Your task to perform on an android device: Search for the most popular books on Goodreads Image 0: 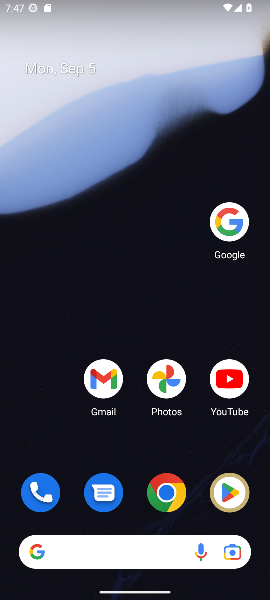
Step 0: click (221, 225)
Your task to perform on an android device: Search for the most popular books on Goodreads Image 1: 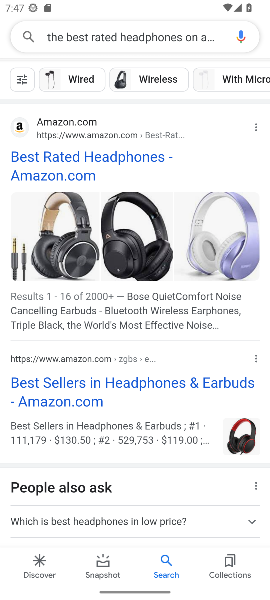
Step 1: click (195, 32)
Your task to perform on an android device: Search for the most popular books on Goodreads Image 2: 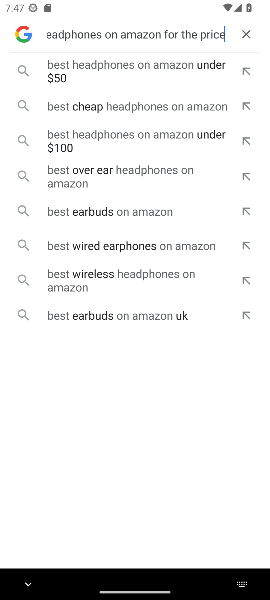
Step 2: click (253, 32)
Your task to perform on an android device: Search for the most popular books on Goodreads Image 3: 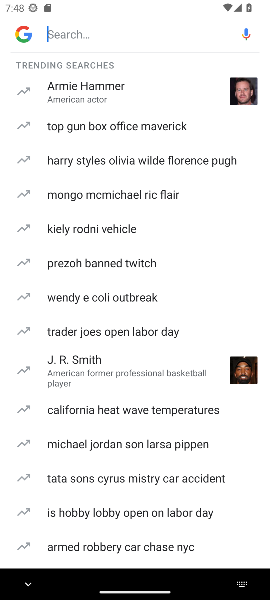
Step 3: click (121, 32)
Your task to perform on an android device: Search for the most popular books on Goodreads Image 4: 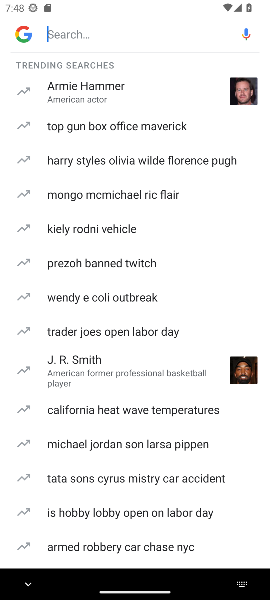
Step 4: type " the most popular books on Goodreads "
Your task to perform on an android device: Search for the most popular books on Goodreads Image 5: 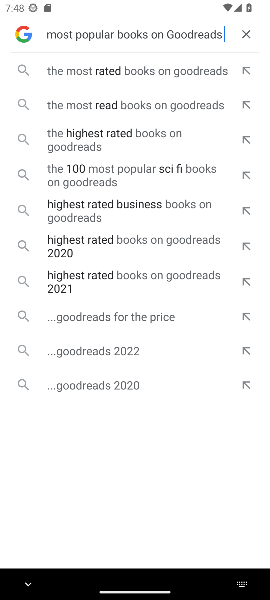
Step 5: click (103, 70)
Your task to perform on an android device: Search for the most popular books on Goodreads Image 6: 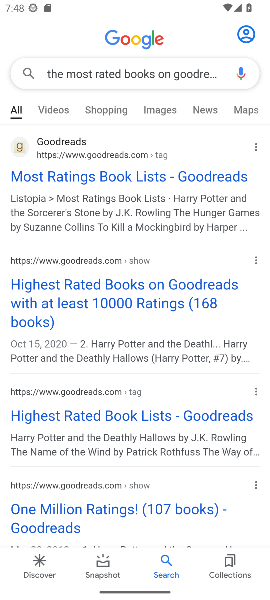
Step 6: click (145, 169)
Your task to perform on an android device: Search for the most popular books on Goodreads Image 7: 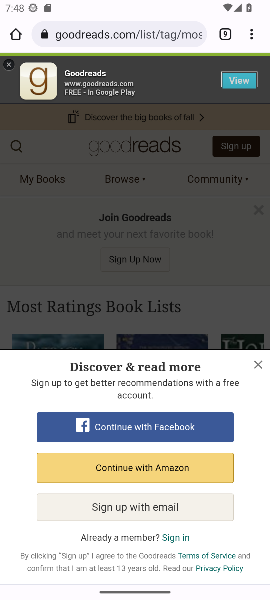
Step 7: click (256, 360)
Your task to perform on an android device: Search for the most popular books on Goodreads Image 8: 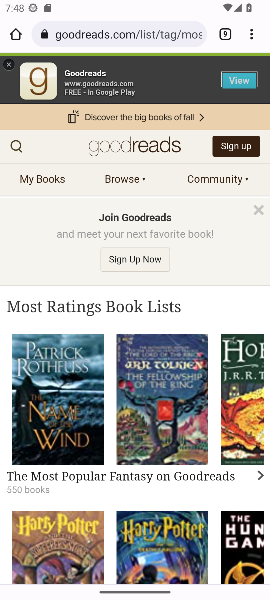
Step 8: click (255, 210)
Your task to perform on an android device: Search for the most popular books on Goodreads Image 9: 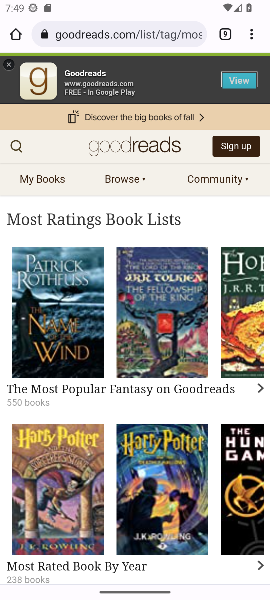
Step 9: click (184, 224)
Your task to perform on an android device: Search for the most popular books on Goodreads Image 10: 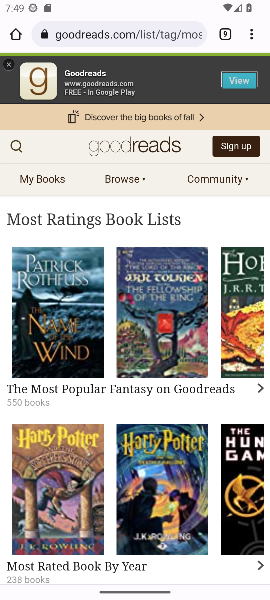
Step 10: task complete